Your task to perform on an android device: check battery use Image 0: 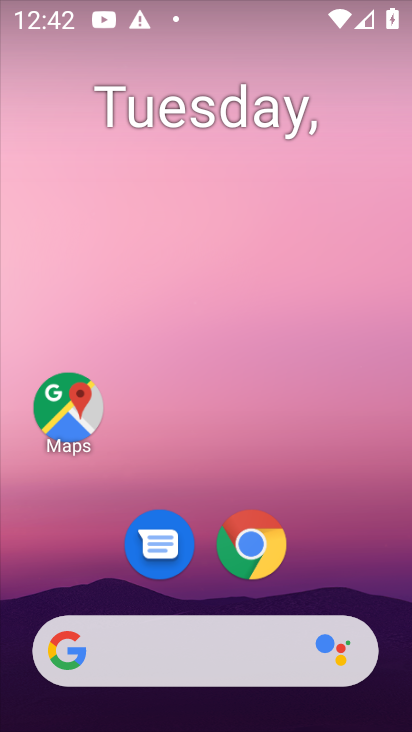
Step 0: drag from (306, 539) to (278, 83)
Your task to perform on an android device: check battery use Image 1: 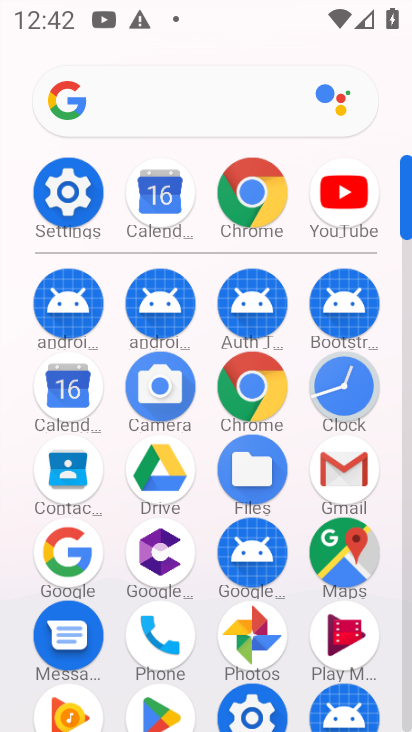
Step 1: click (252, 703)
Your task to perform on an android device: check battery use Image 2: 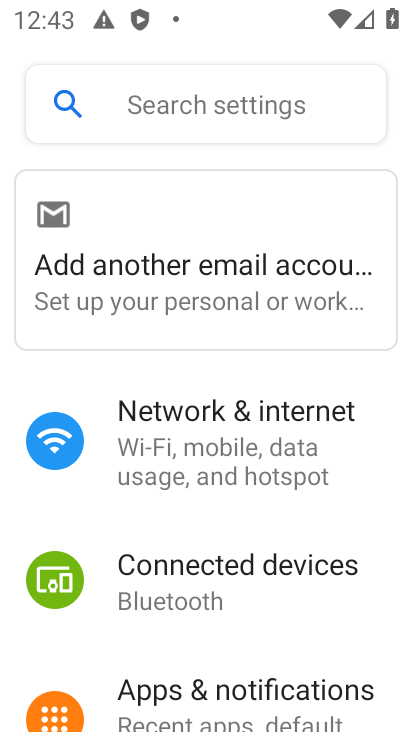
Step 2: drag from (203, 633) to (243, 1)
Your task to perform on an android device: check battery use Image 3: 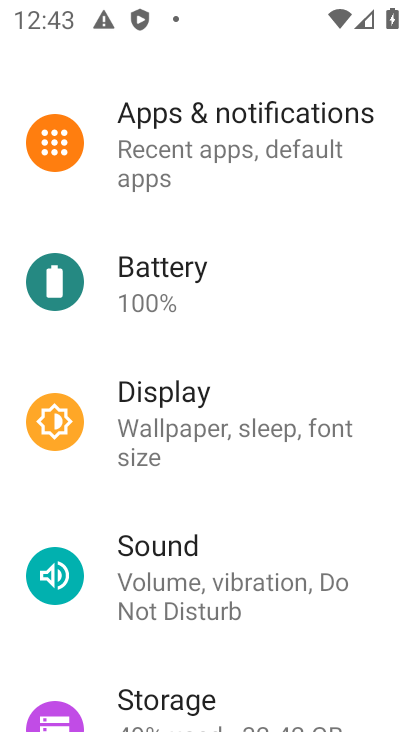
Step 3: click (166, 299)
Your task to perform on an android device: check battery use Image 4: 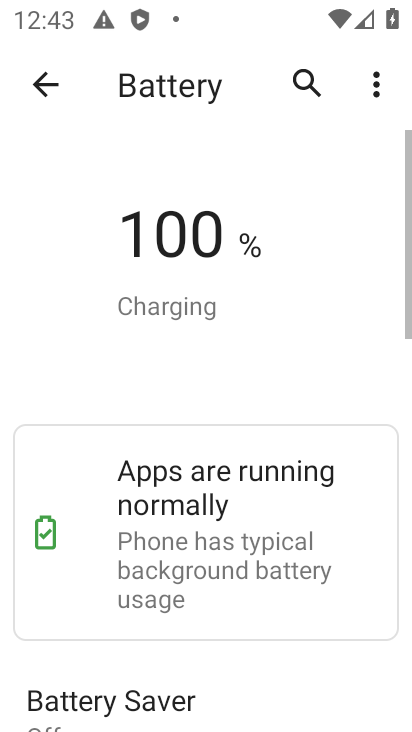
Step 4: click (382, 84)
Your task to perform on an android device: check battery use Image 5: 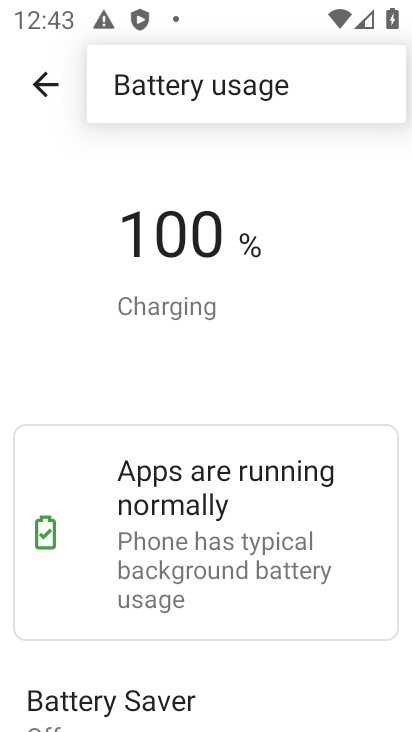
Step 5: click (276, 91)
Your task to perform on an android device: check battery use Image 6: 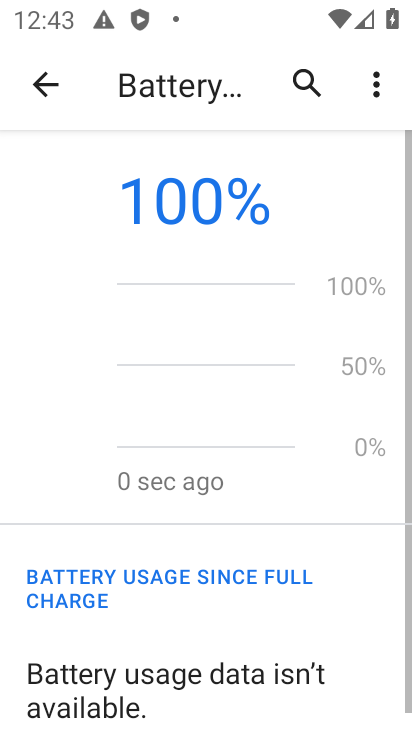
Step 6: task complete